Your task to perform on an android device: see sites visited before in the chrome app Image 0: 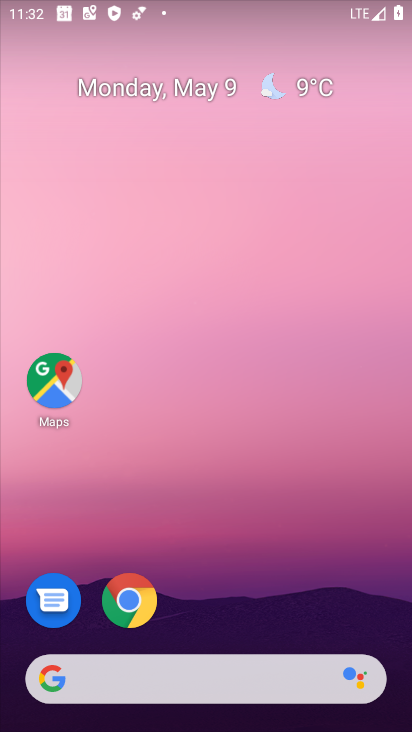
Step 0: click (285, 511)
Your task to perform on an android device: see sites visited before in the chrome app Image 1: 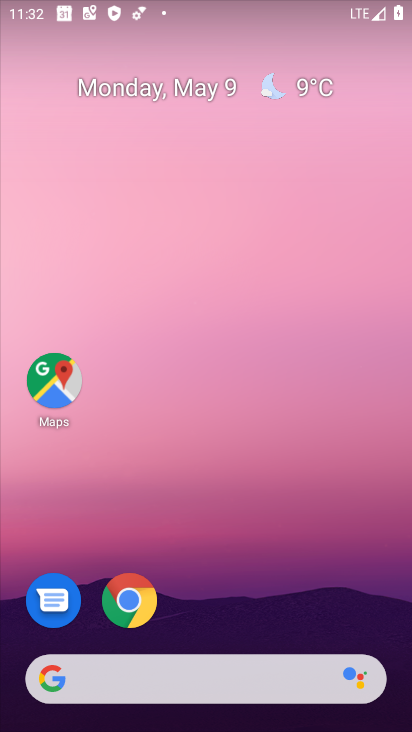
Step 1: click (148, 597)
Your task to perform on an android device: see sites visited before in the chrome app Image 2: 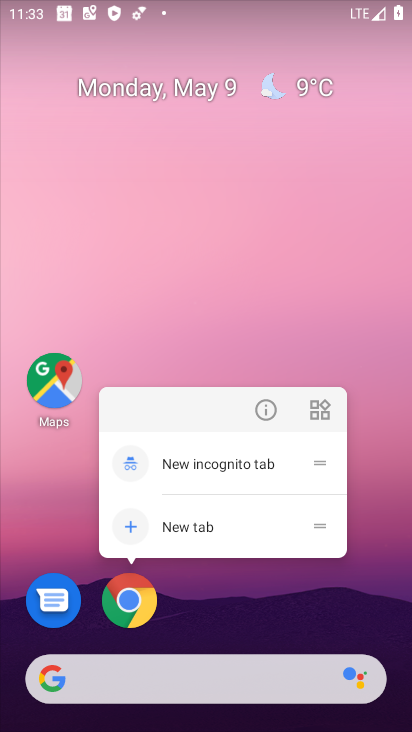
Step 2: drag from (372, 576) to (346, 83)
Your task to perform on an android device: see sites visited before in the chrome app Image 3: 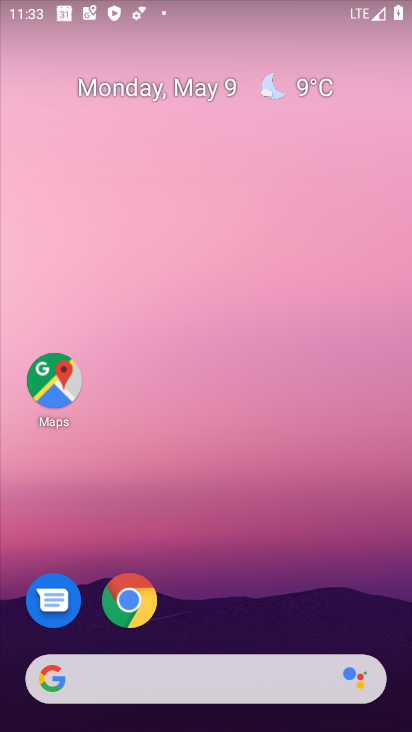
Step 3: click (120, 596)
Your task to perform on an android device: see sites visited before in the chrome app Image 4: 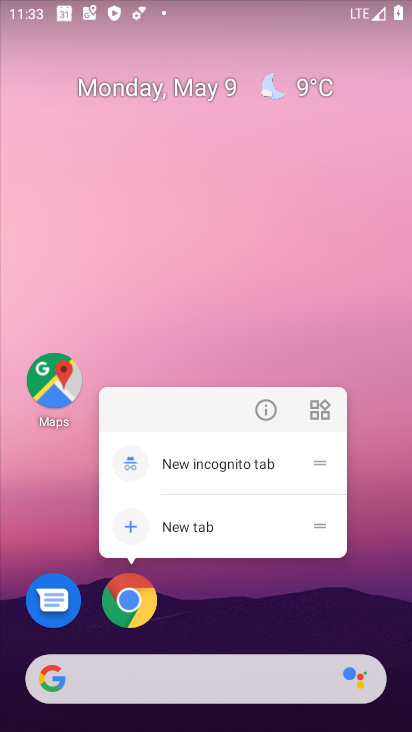
Step 4: click (145, 598)
Your task to perform on an android device: see sites visited before in the chrome app Image 5: 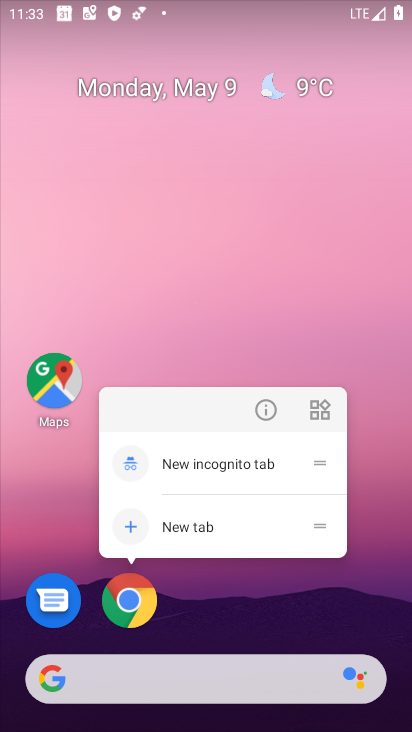
Step 5: click (145, 599)
Your task to perform on an android device: see sites visited before in the chrome app Image 6: 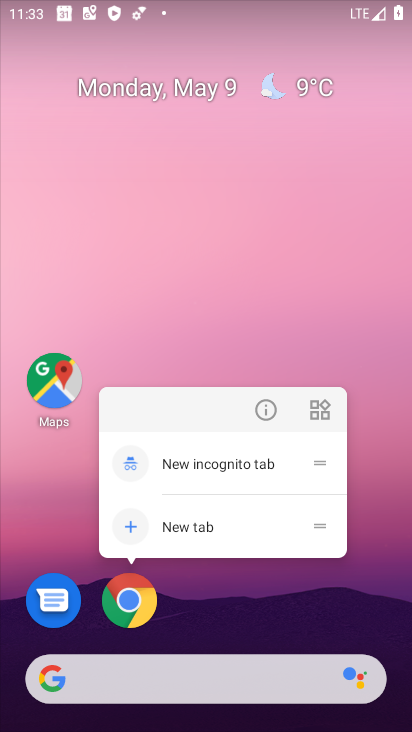
Step 6: drag from (301, 622) to (314, 141)
Your task to perform on an android device: see sites visited before in the chrome app Image 7: 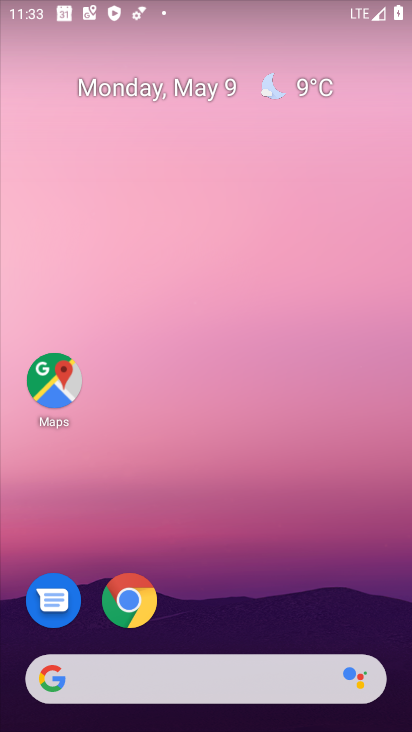
Step 7: drag from (270, 614) to (273, 4)
Your task to perform on an android device: see sites visited before in the chrome app Image 8: 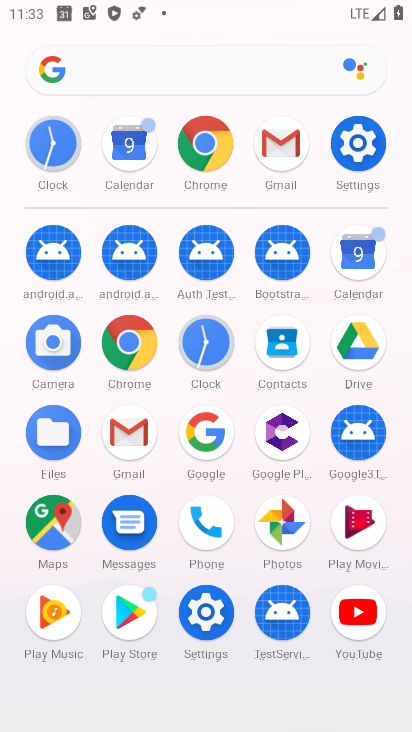
Step 8: click (201, 148)
Your task to perform on an android device: see sites visited before in the chrome app Image 9: 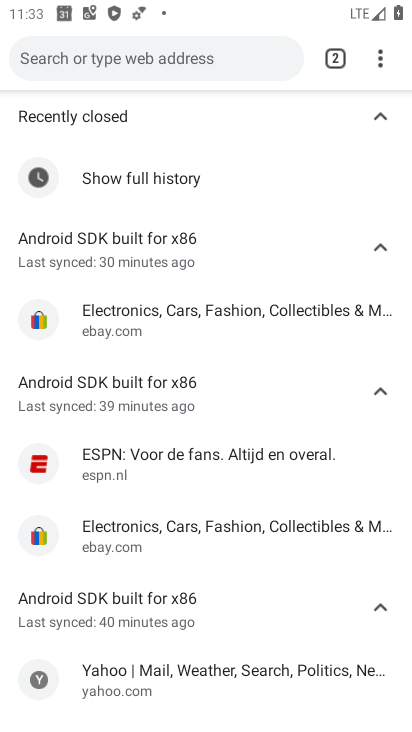
Step 9: task complete